Your task to perform on an android device: turn on showing notifications on the lock screen Image 0: 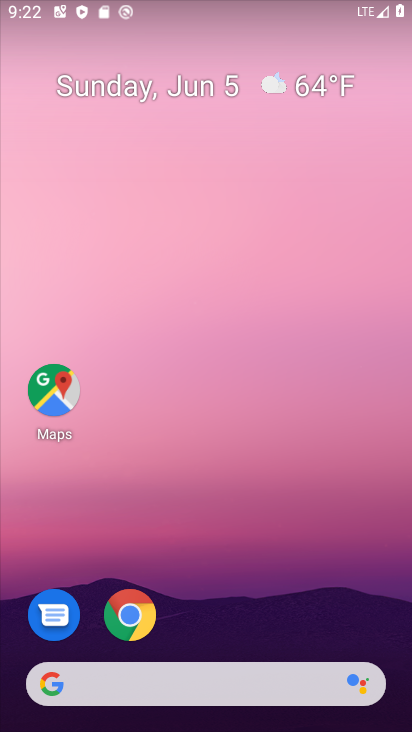
Step 0: drag from (174, 664) to (215, 204)
Your task to perform on an android device: turn on showing notifications on the lock screen Image 1: 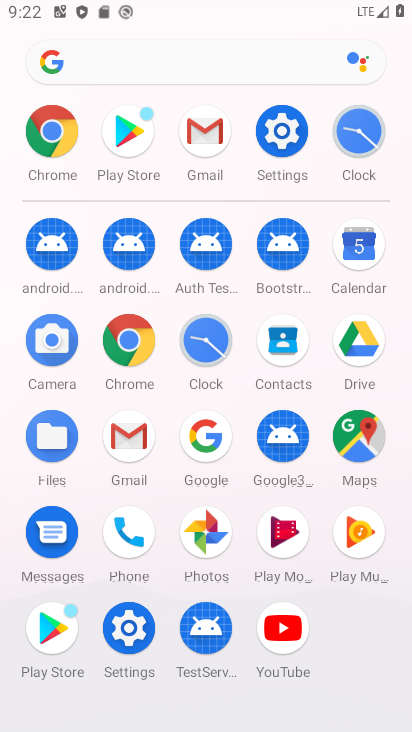
Step 1: click (131, 633)
Your task to perform on an android device: turn on showing notifications on the lock screen Image 2: 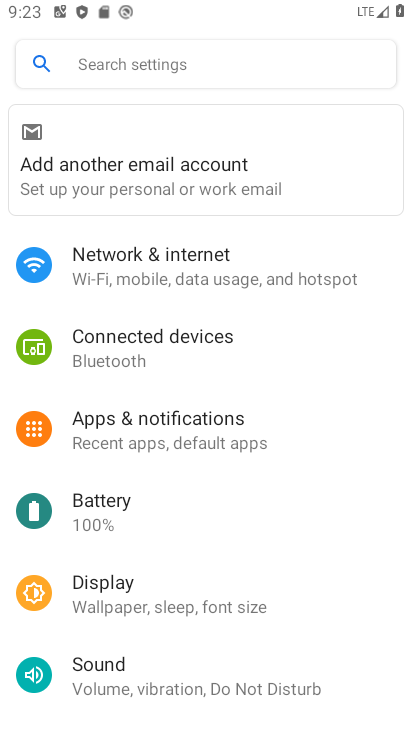
Step 2: click (132, 418)
Your task to perform on an android device: turn on showing notifications on the lock screen Image 3: 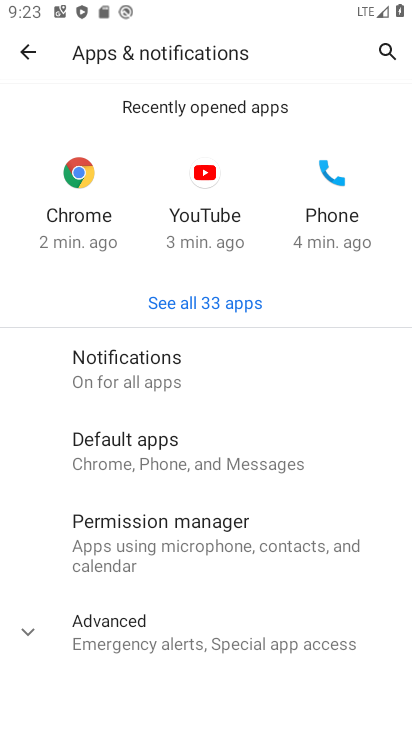
Step 3: click (186, 379)
Your task to perform on an android device: turn on showing notifications on the lock screen Image 4: 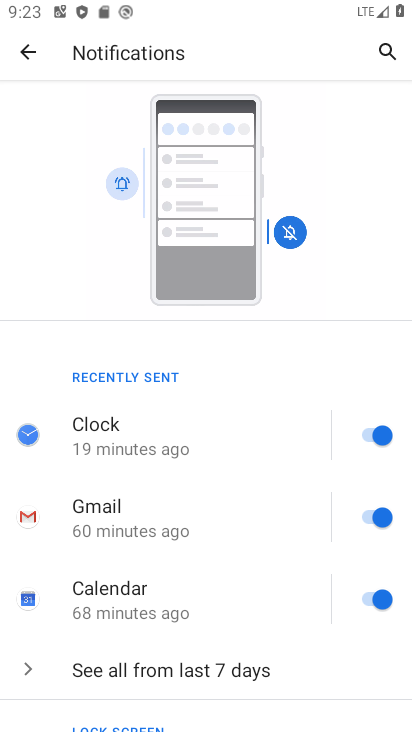
Step 4: drag from (154, 607) to (132, 199)
Your task to perform on an android device: turn on showing notifications on the lock screen Image 5: 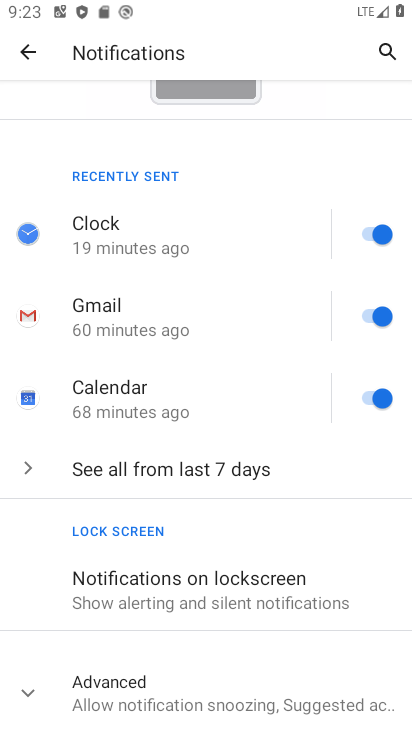
Step 5: click (201, 579)
Your task to perform on an android device: turn on showing notifications on the lock screen Image 6: 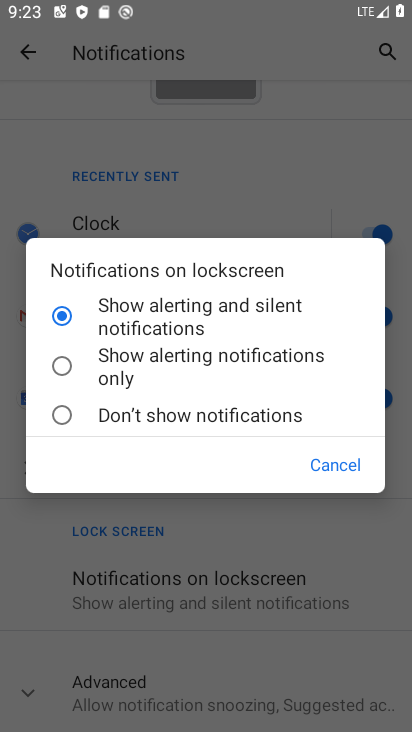
Step 6: click (159, 317)
Your task to perform on an android device: turn on showing notifications on the lock screen Image 7: 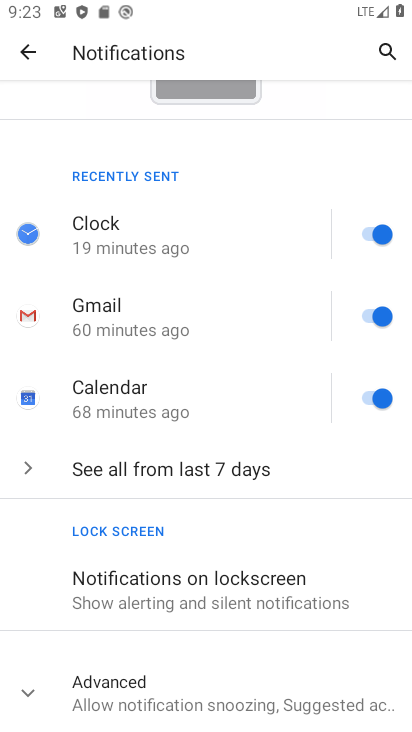
Step 7: task complete